Your task to perform on an android device: Show me the alarms in the clock app Image 0: 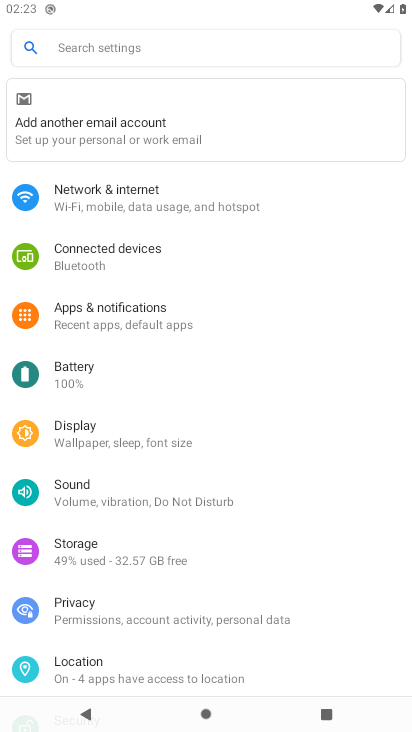
Step 0: press home button
Your task to perform on an android device: Show me the alarms in the clock app Image 1: 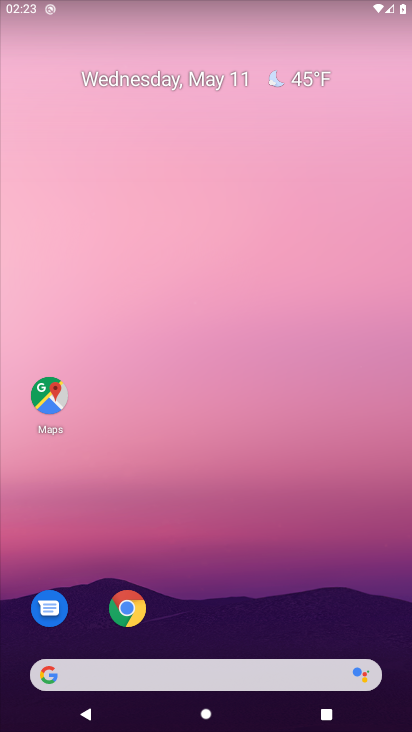
Step 1: drag from (235, 636) to (275, 36)
Your task to perform on an android device: Show me the alarms in the clock app Image 2: 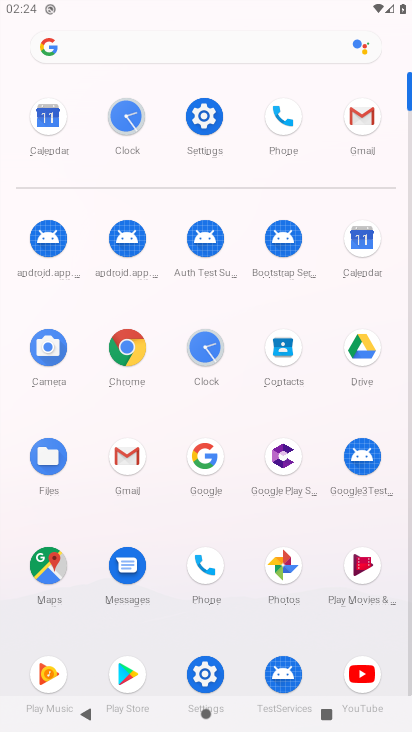
Step 2: click (204, 345)
Your task to perform on an android device: Show me the alarms in the clock app Image 3: 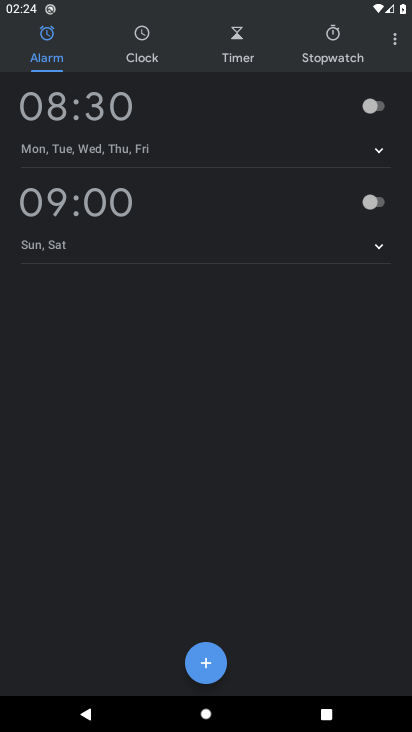
Step 3: task complete